Your task to perform on an android device: Turn on the flashlight Image 0: 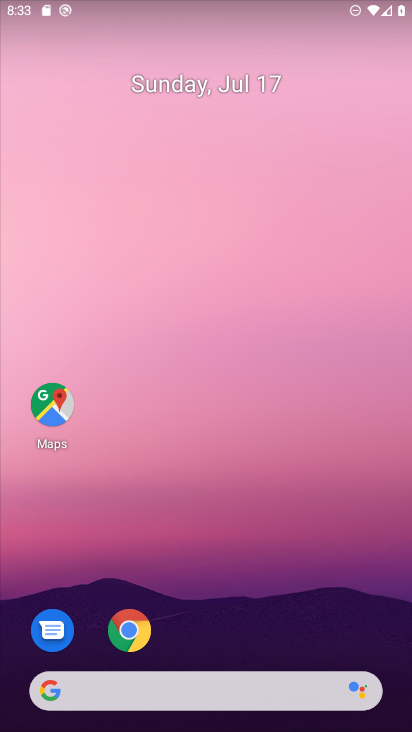
Step 0: drag from (307, 518) to (215, 15)
Your task to perform on an android device: Turn on the flashlight Image 1: 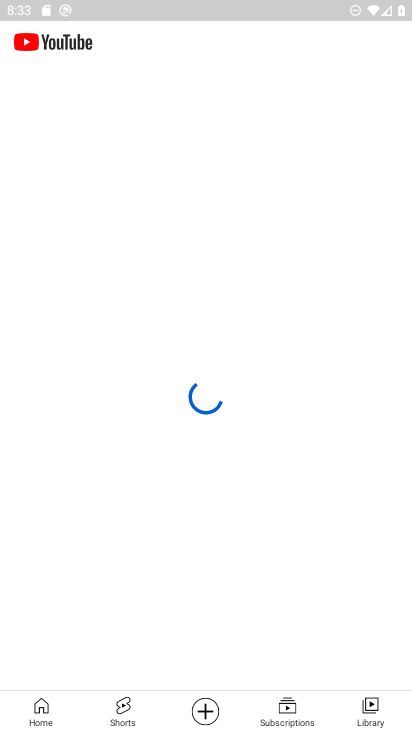
Step 1: press home button
Your task to perform on an android device: Turn on the flashlight Image 2: 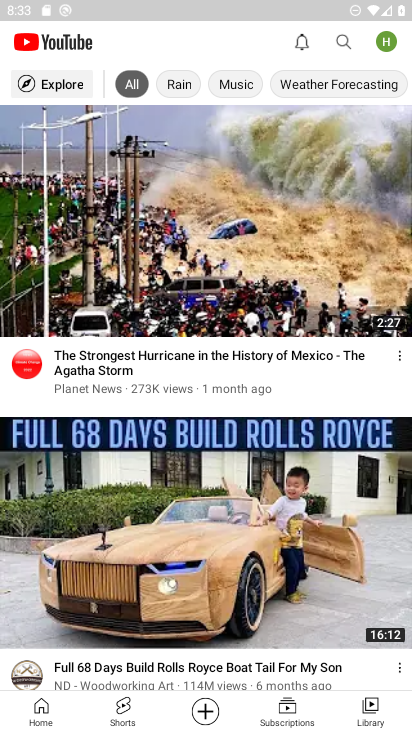
Step 2: drag from (331, 705) to (237, 3)
Your task to perform on an android device: Turn on the flashlight Image 3: 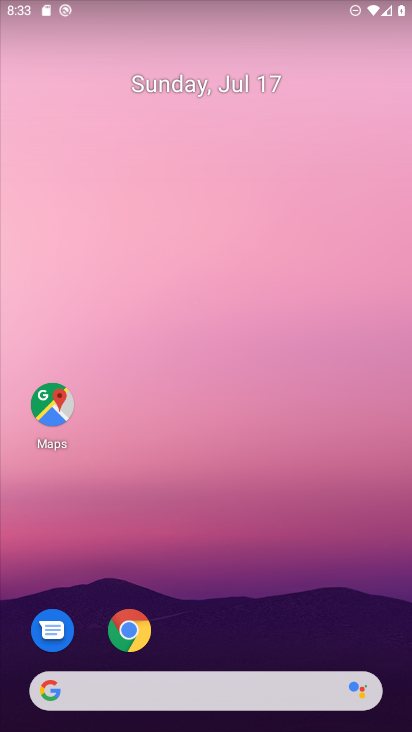
Step 3: drag from (315, 605) to (223, 11)
Your task to perform on an android device: Turn on the flashlight Image 4: 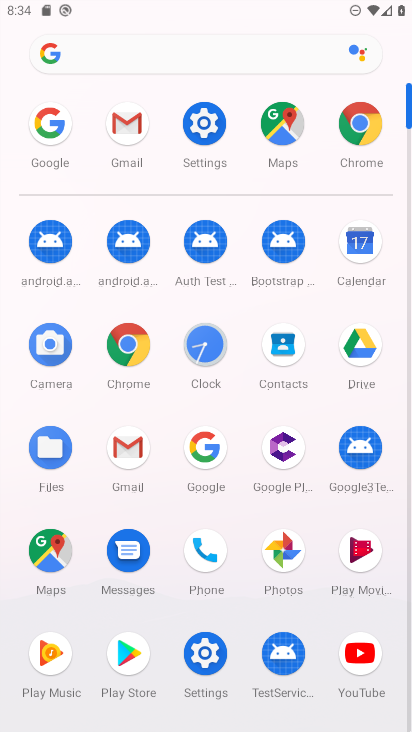
Step 4: click (223, 683)
Your task to perform on an android device: Turn on the flashlight Image 5: 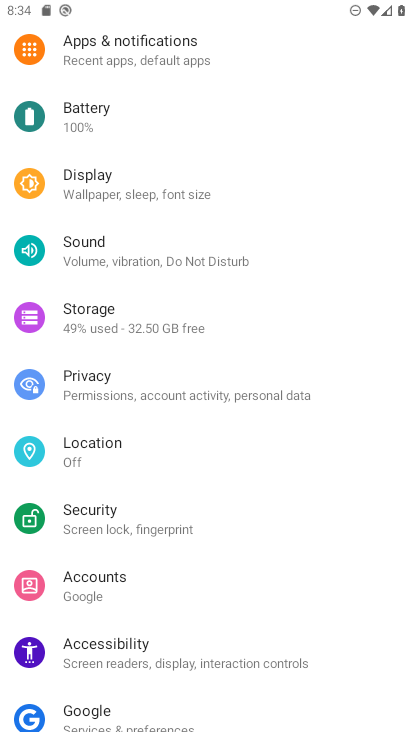
Step 5: task complete